Your task to perform on an android device: turn off smart reply in the gmail app Image 0: 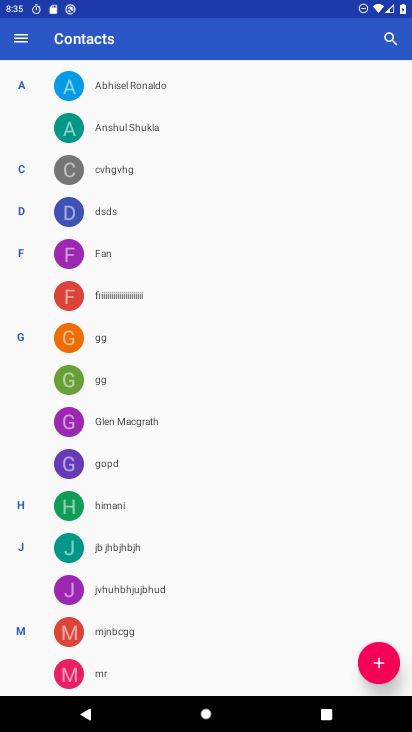
Step 0: press home button
Your task to perform on an android device: turn off smart reply in the gmail app Image 1: 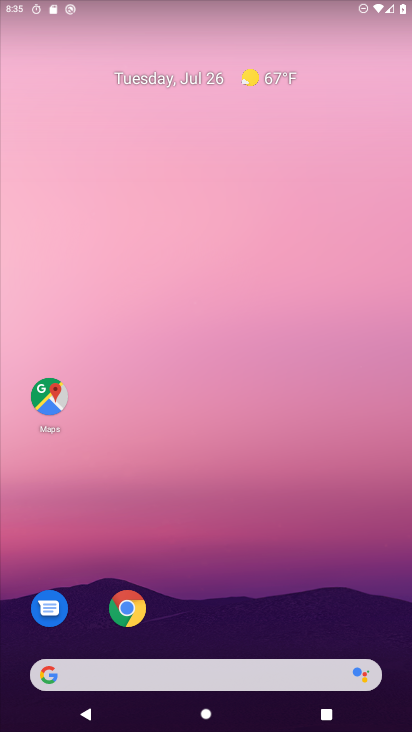
Step 1: drag from (216, 613) to (342, 97)
Your task to perform on an android device: turn off smart reply in the gmail app Image 2: 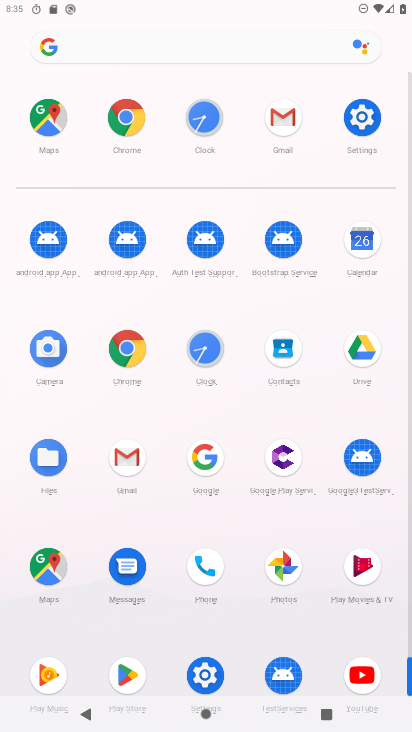
Step 2: click (131, 451)
Your task to perform on an android device: turn off smart reply in the gmail app Image 3: 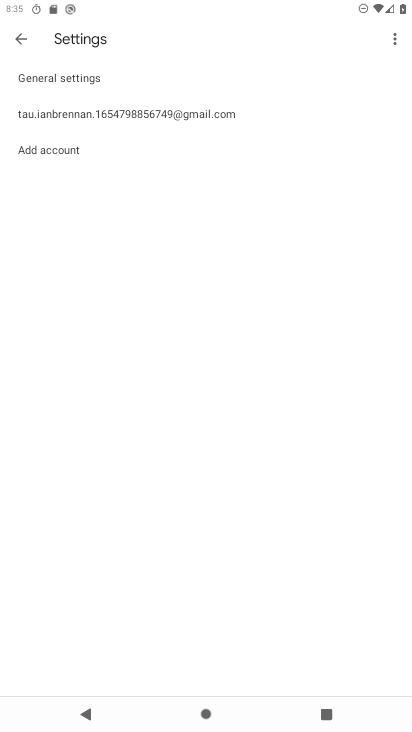
Step 3: click (137, 115)
Your task to perform on an android device: turn off smart reply in the gmail app Image 4: 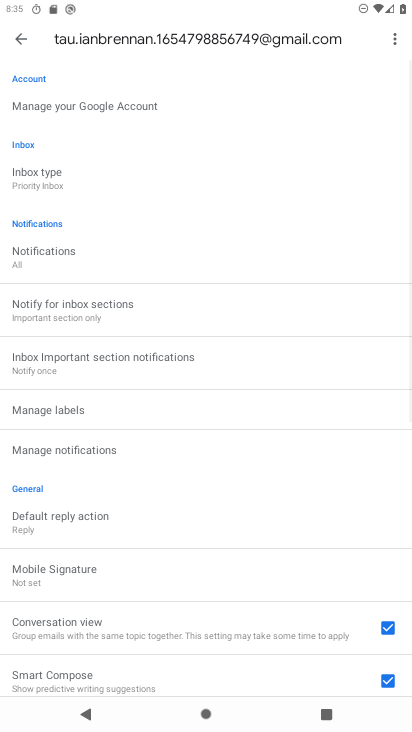
Step 4: drag from (164, 600) to (201, 394)
Your task to perform on an android device: turn off smart reply in the gmail app Image 5: 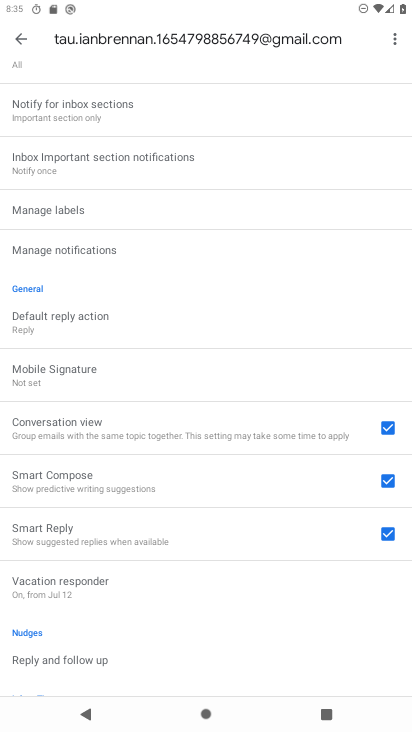
Step 5: click (372, 527)
Your task to perform on an android device: turn off smart reply in the gmail app Image 6: 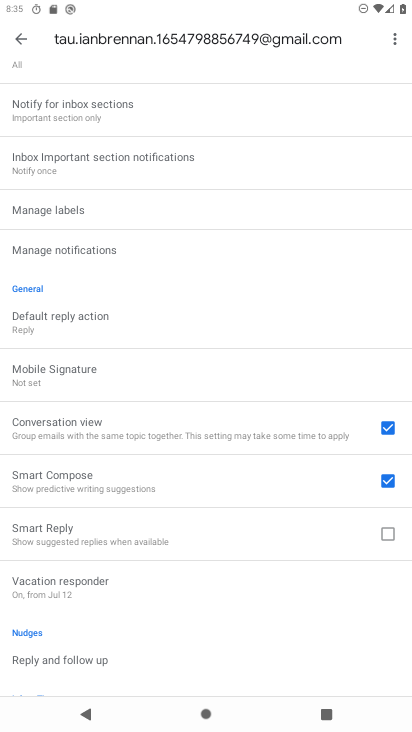
Step 6: task complete